Your task to perform on an android device: toggle priority inbox in the gmail app Image 0: 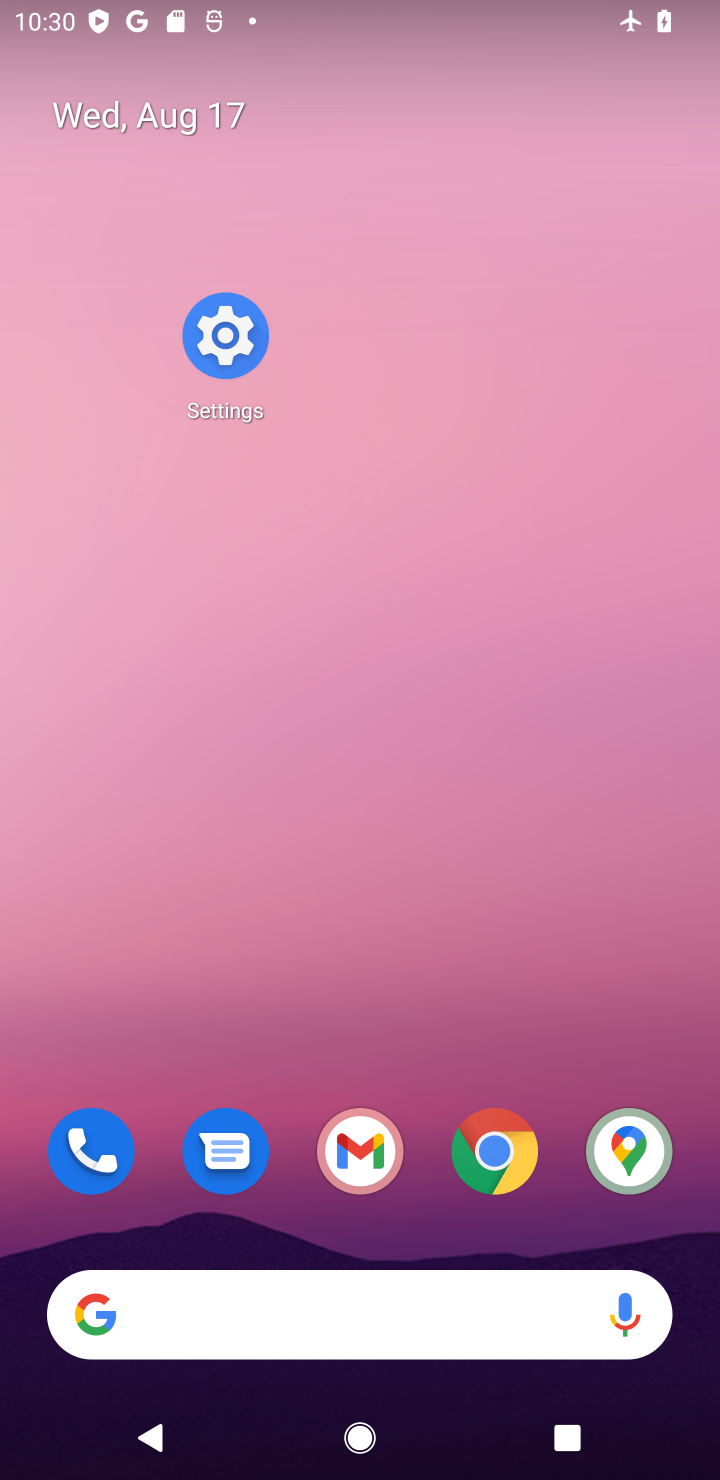
Step 0: click (366, 1175)
Your task to perform on an android device: toggle priority inbox in the gmail app Image 1: 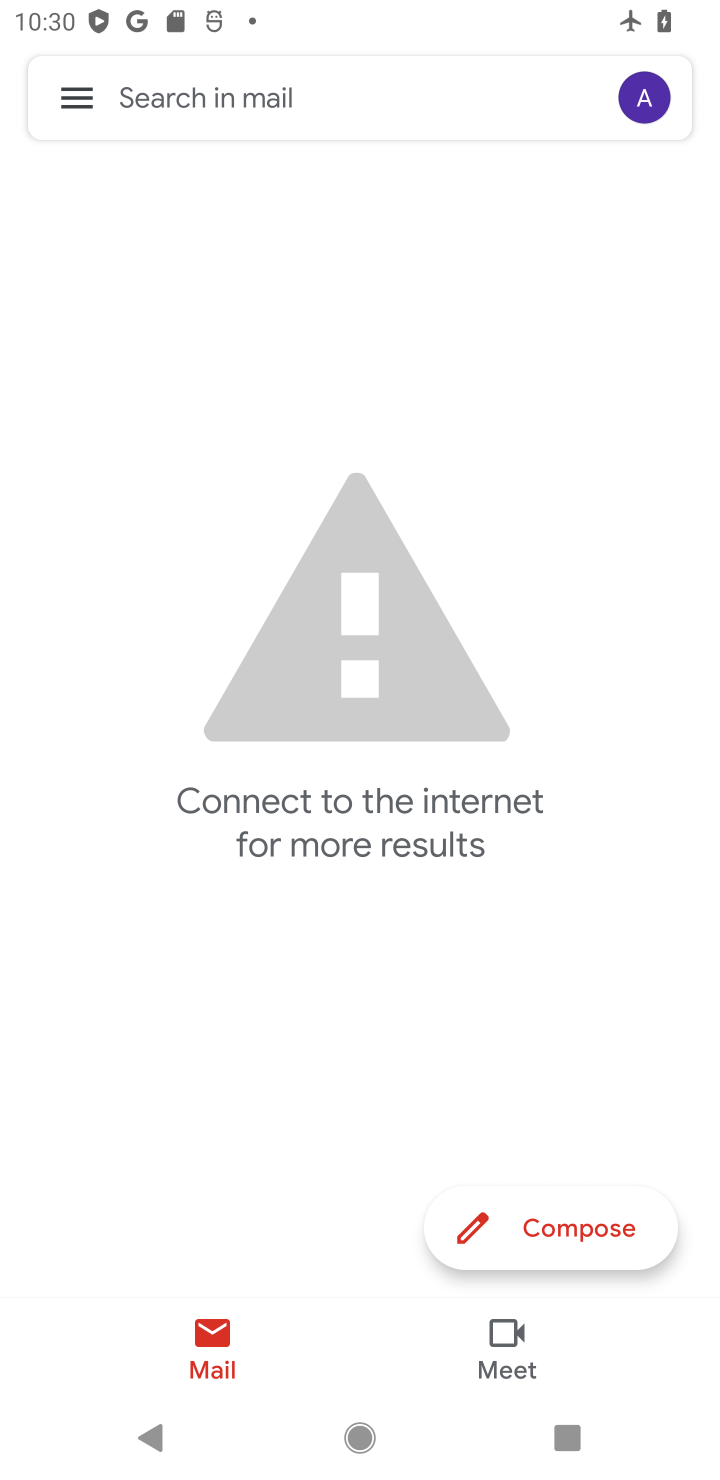
Step 1: click (82, 108)
Your task to perform on an android device: toggle priority inbox in the gmail app Image 2: 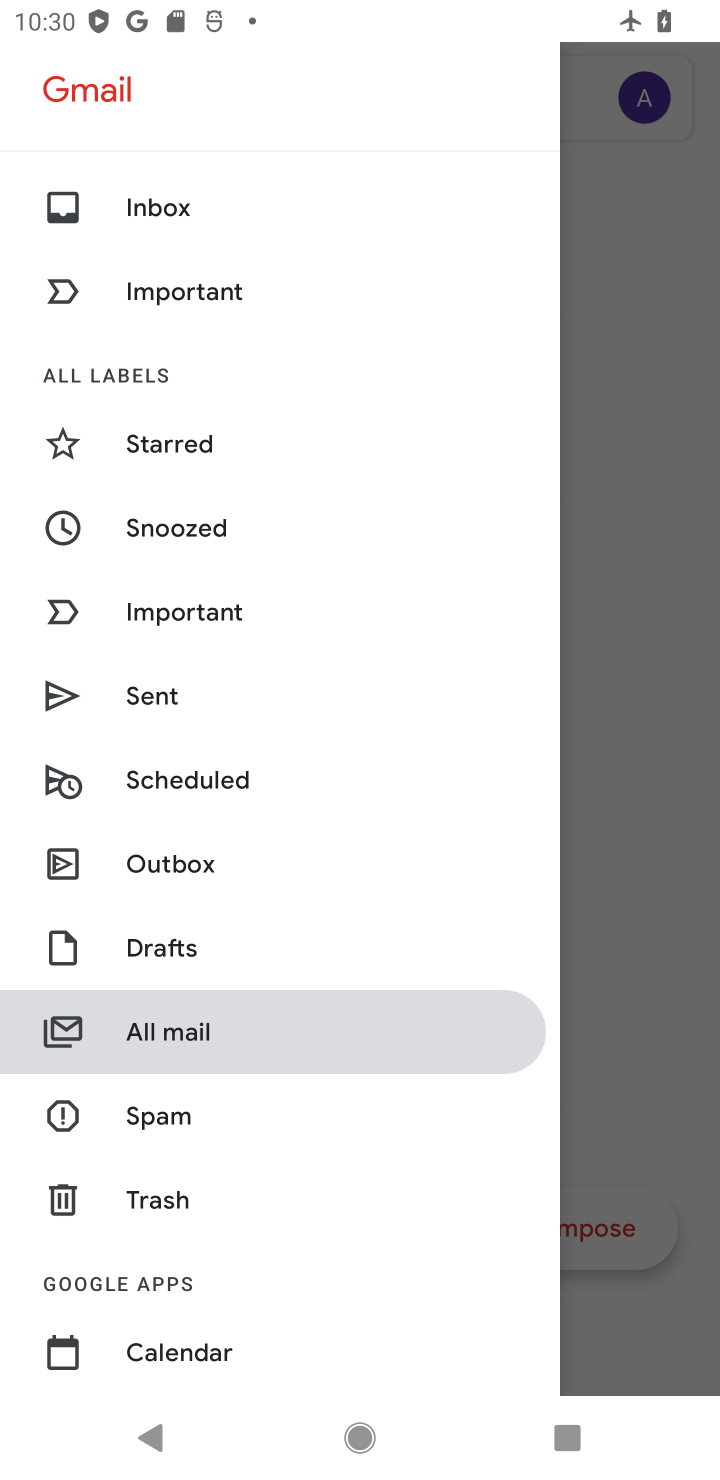
Step 2: drag from (277, 1293) to (309, 207)
Your task to perform on an android device: toggle priority inbox in the gmail app Image 3: 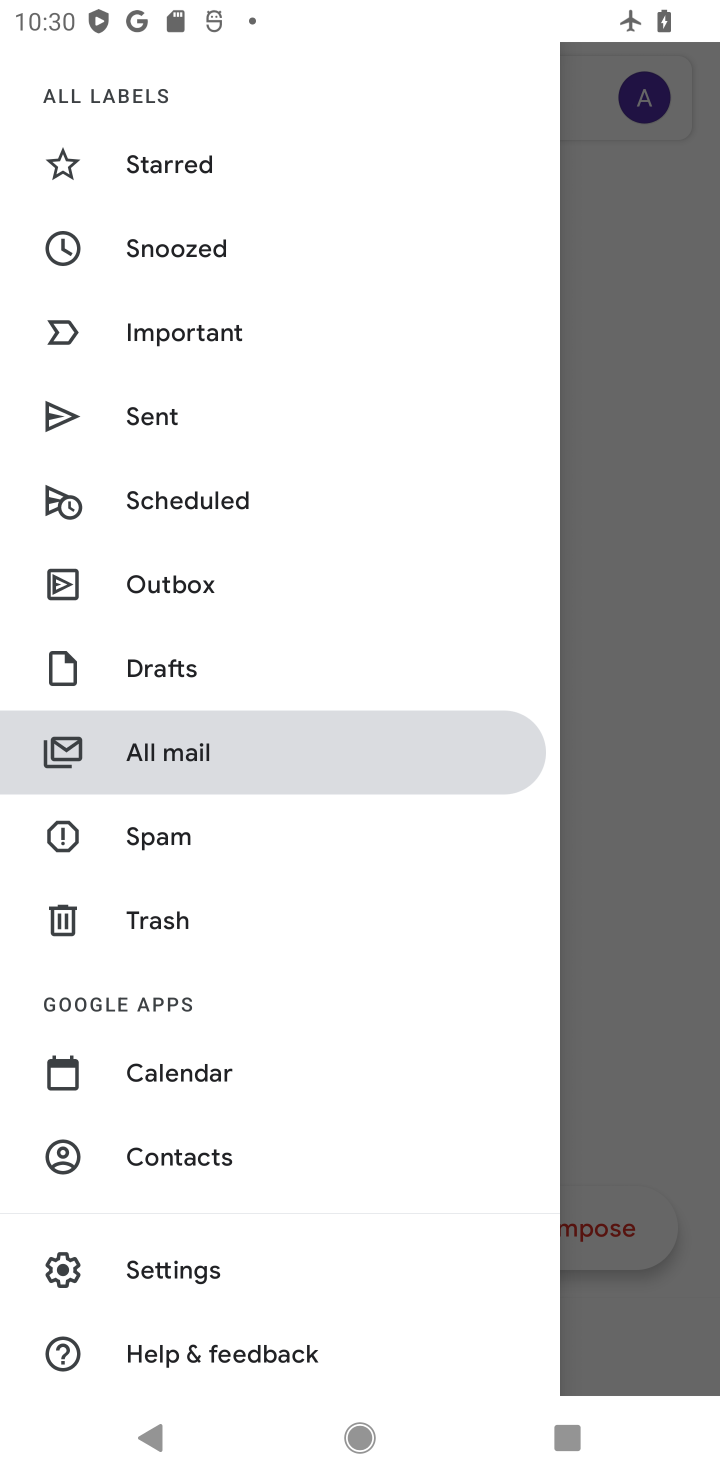
Step 3: click (160, 1264)
Your task to perform on an android device: toggle priority inbox in the gmail app Image 4: 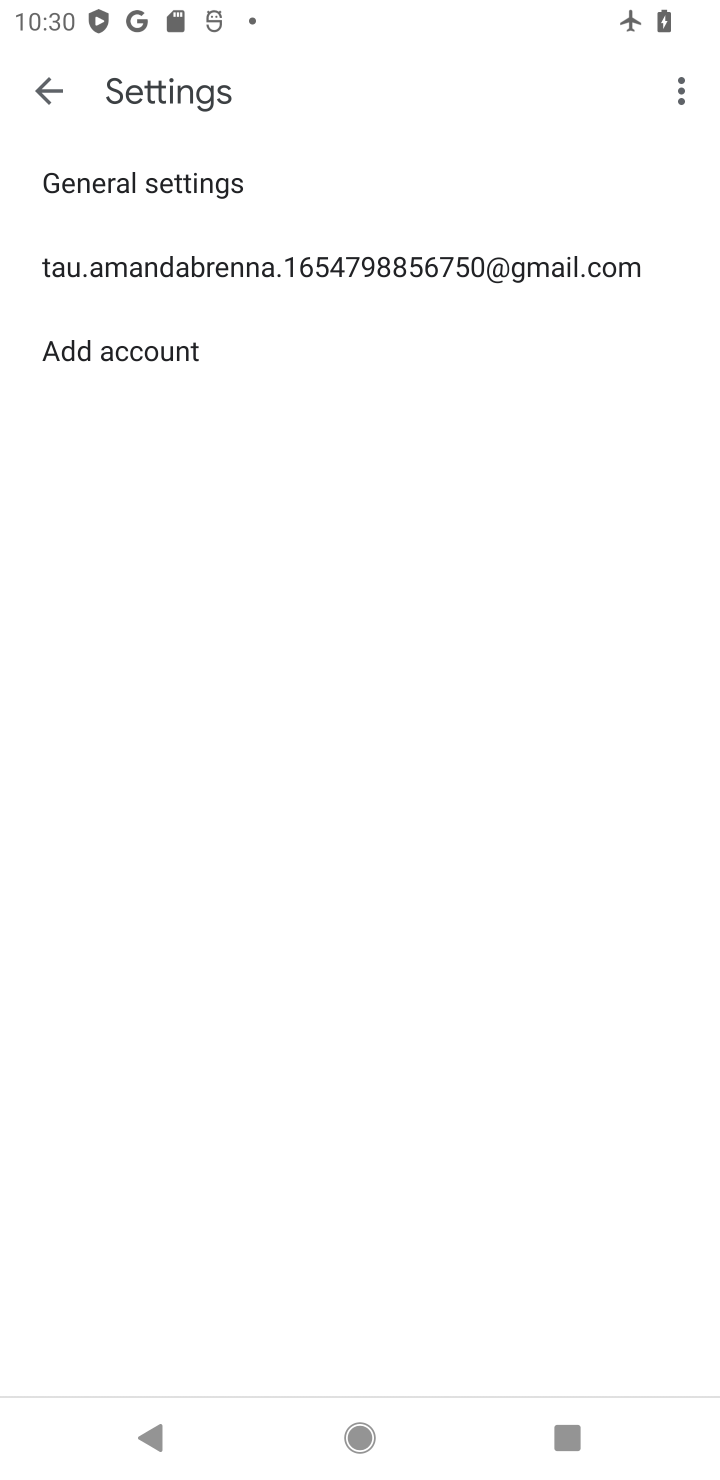
Step 4: click (314, 263)
Your task to perform on an android device: toggle priority inbox in the gmail app Image 5: 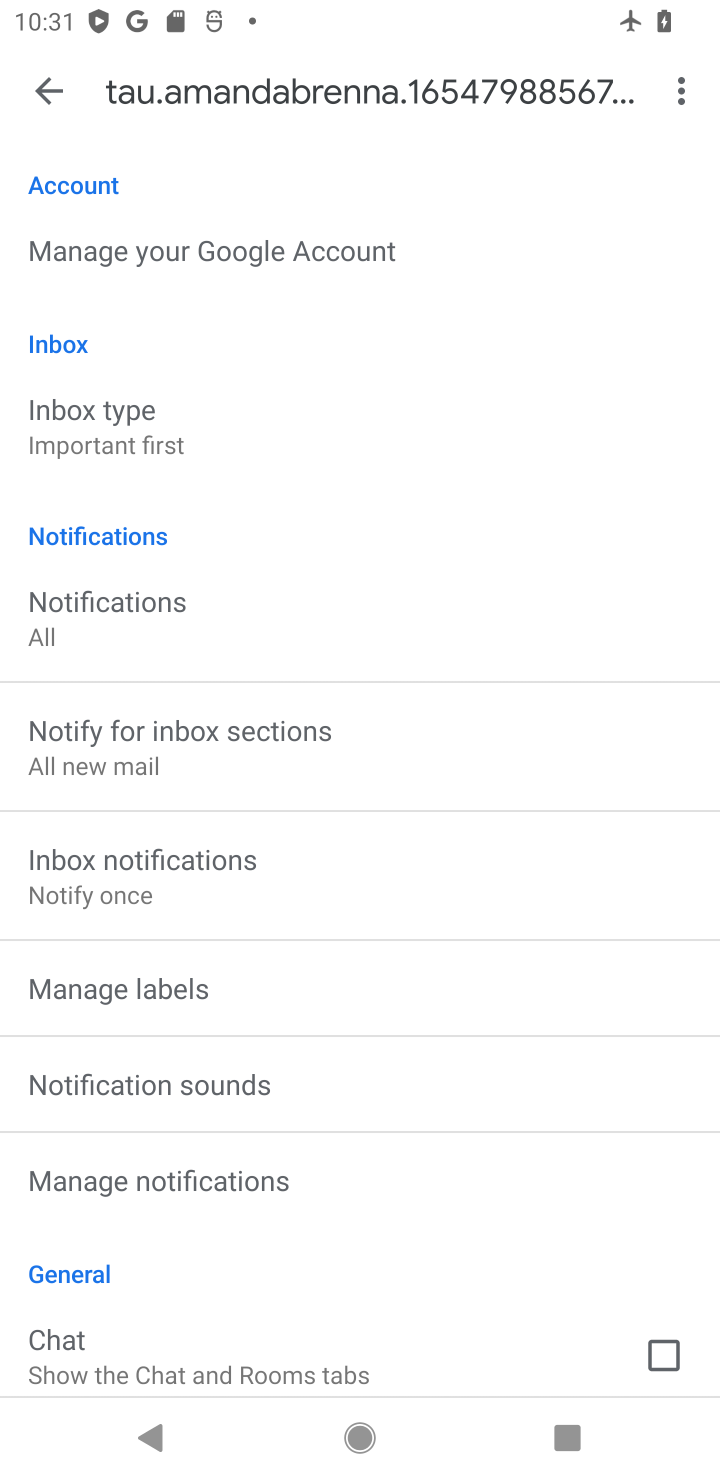
Step 5: click (120, 432)
Your task to perform on an android device: toggle priority inbox in the gmail app Image 6: 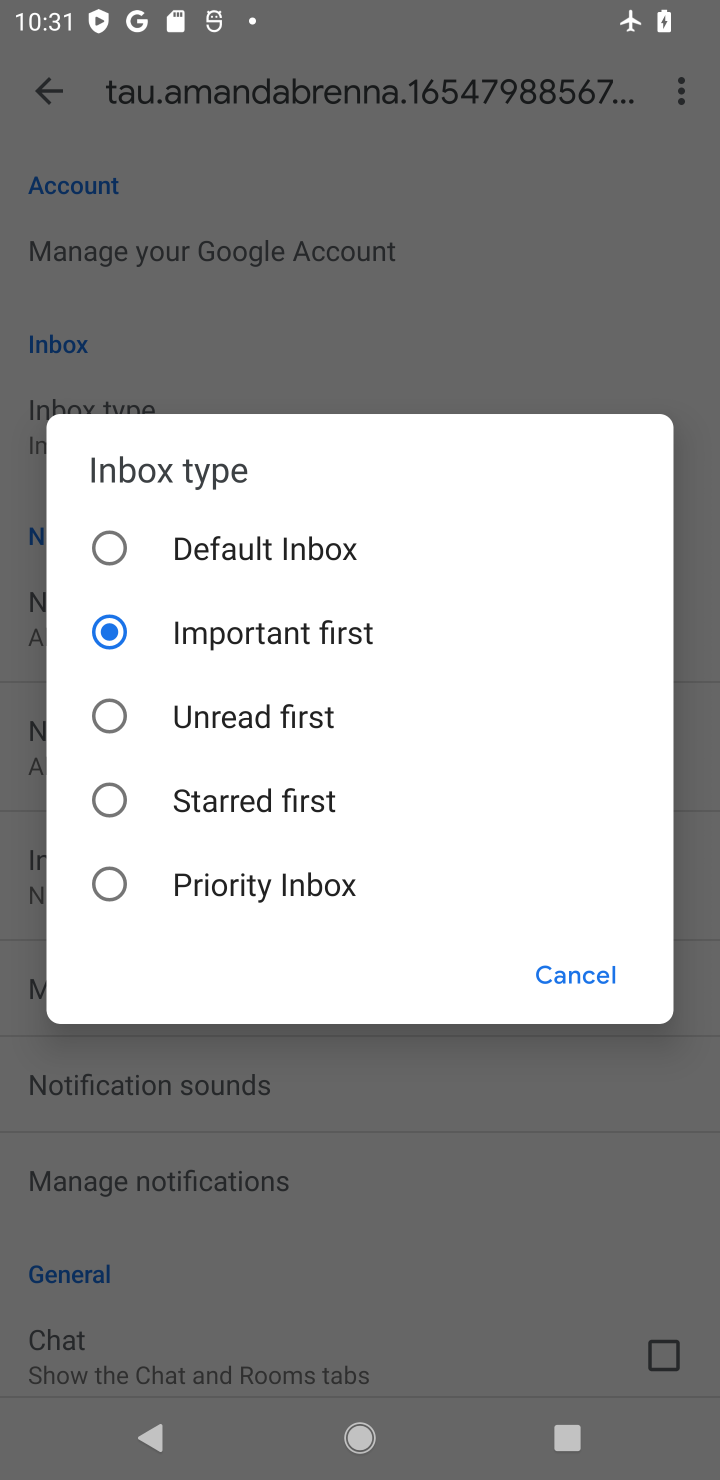
Step 6: click (101, 890)
Your task to perform on an android device: toggle priority inbox in the gmail app Image 7: 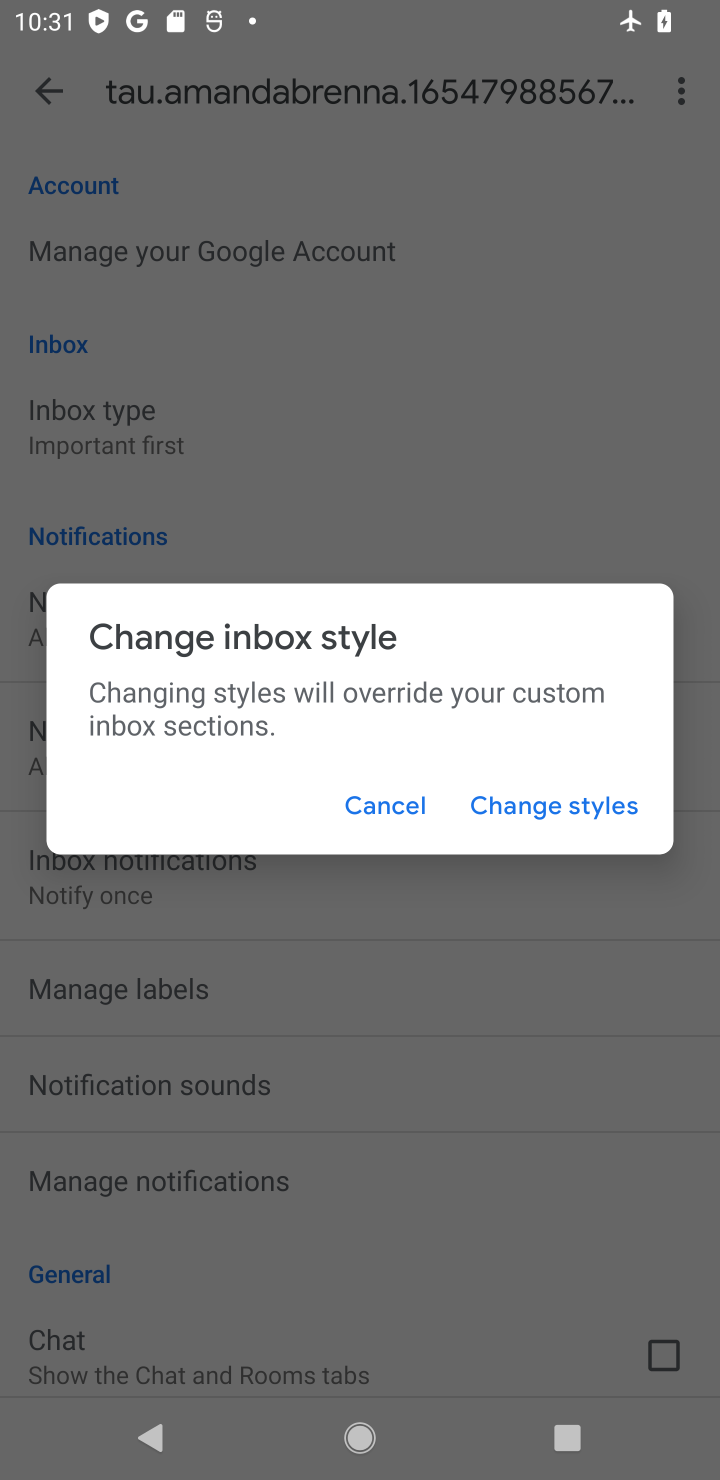
Step 7: task complete